Your task to perform on an android device: Go to calendar. Show me events next week Image 0: 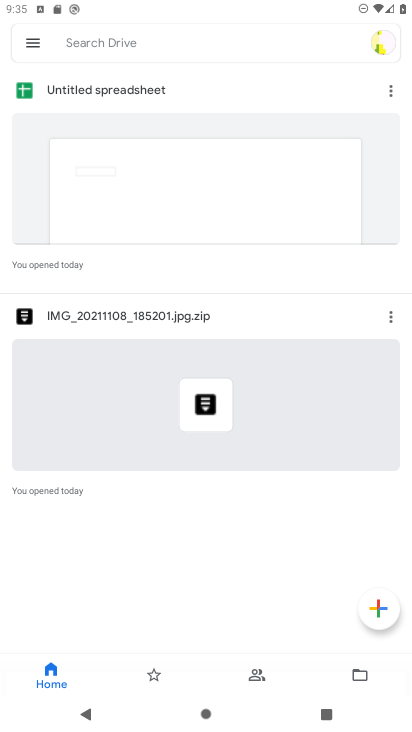
Step 0: press home button
Your task to perform on an android device: Go to calendar. Show me events next week Image 1: 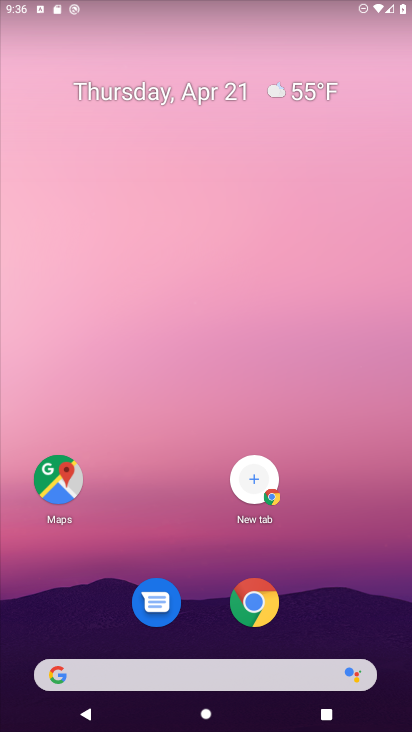
Step 1: click (139, 100)
Your task to perform on an android device: Go to calendar. Show me events next week Image 2: 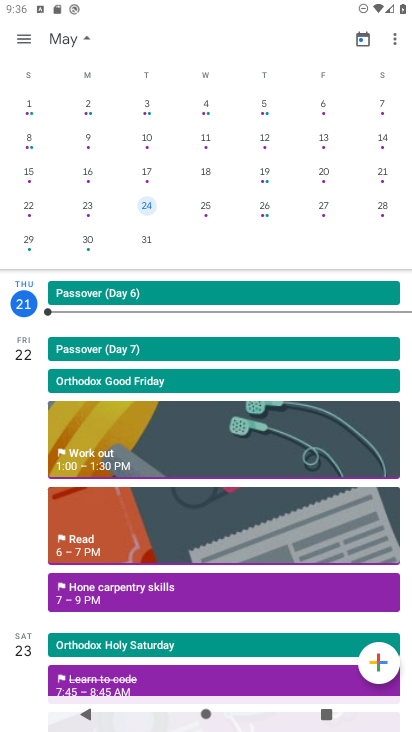
Step 2: drag from (25, 105) to (384, 144)
Your task to perform on an android device: Go to calendar. Show me events next week Image 3: 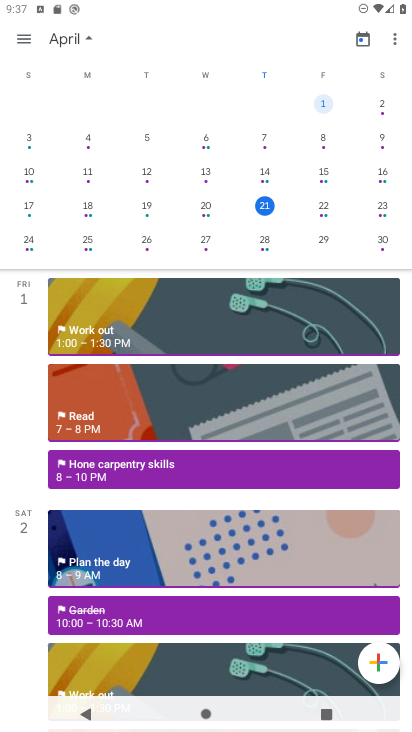
Step 3: click (266, 245)
Your task to perform on an android device: Go to calendar. Show me events next week Image 4: 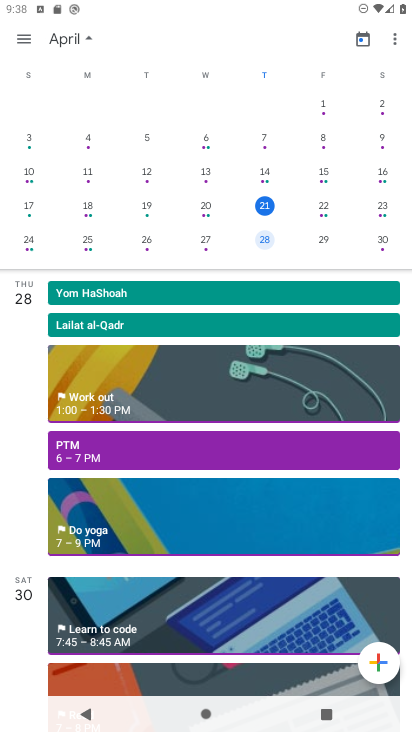
Step 4: task complete